Your task to perform on an android device: delete location history Image 0: 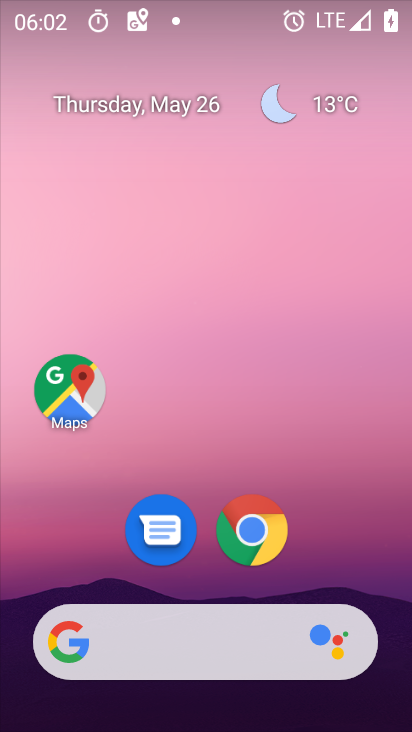
Step 0: drag from (203, 650) to (163, 93)
Your task to perform on an android device: delete location history Image 1: 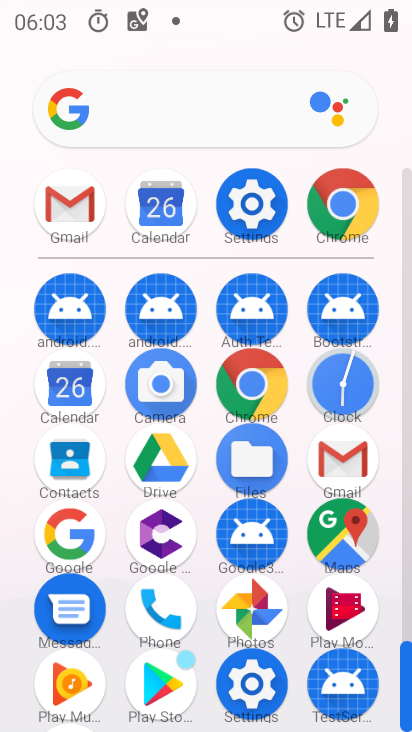
Step 1: click (351, 537)
Your task to perform on an android device: delete location history Image 2: 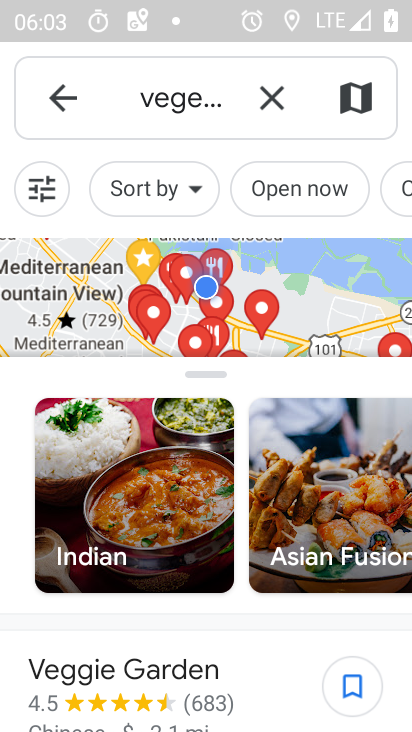
Step 2: press back button
Your task to perform on an android device: delete location history Image 3: 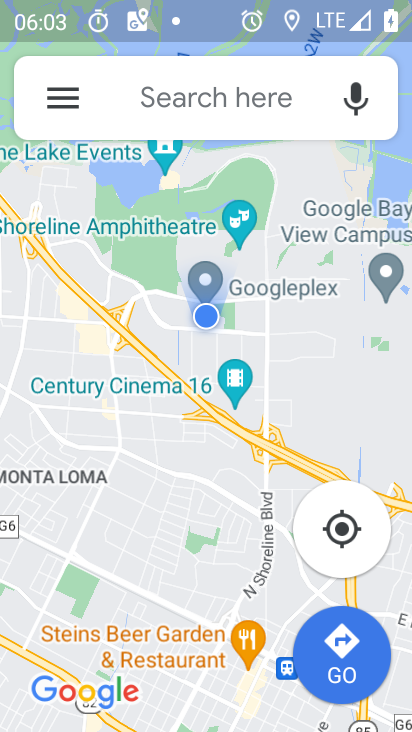
Step 3: click (49, 100)
Your task to perform on an android device: delete location history Image 4: 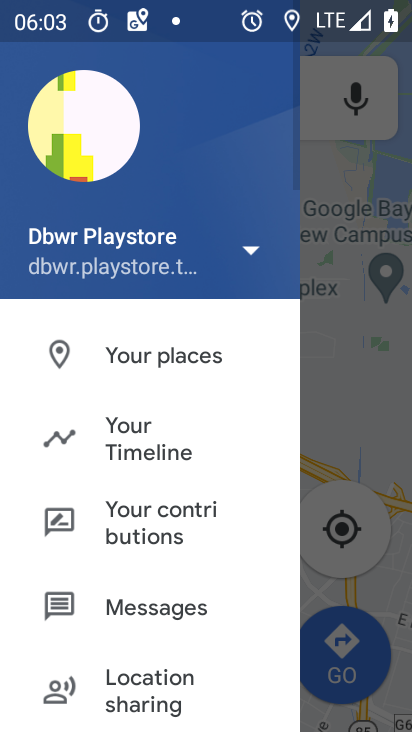
Step 4: click (193, 423)
Your task to perform on an android device: delete location history Image 5: 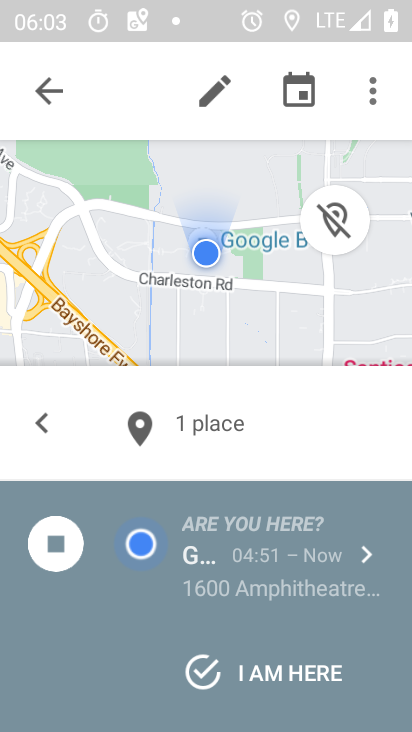
Step 5: click (377, 86)
Your task to perform on an android device: delete location history Image 6: 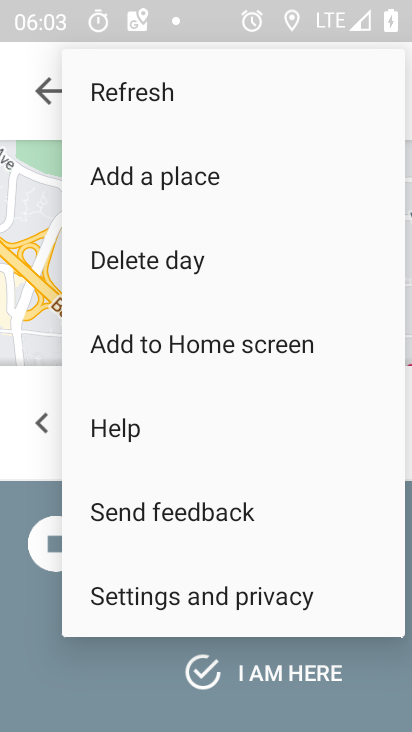
Step 6: click (240, 589)
Your task to perform on an android device: delete location history Image 7: 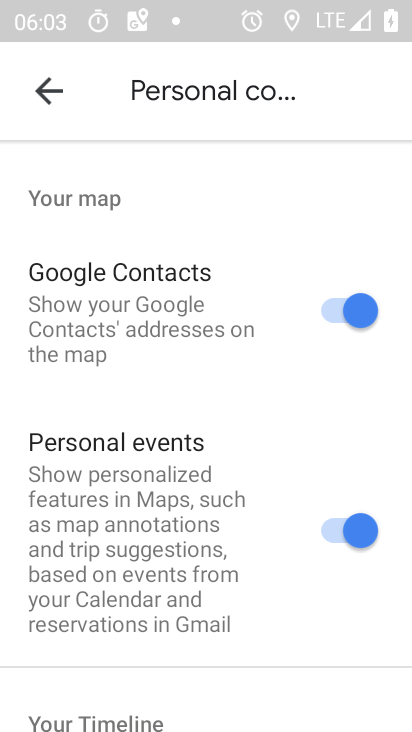
Step 7: drag from (212, 662) to (310, 35)
Your task to perform on an android device: delete location history Image 8: 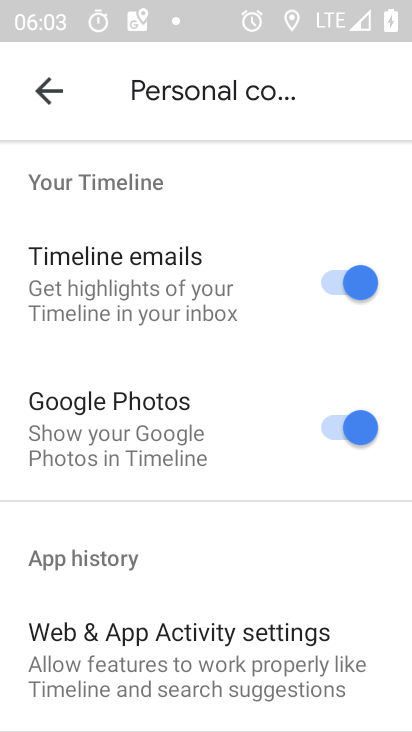
Step 8: drag from (231, 629) to (213, 74)
Your task to perform on an android device: delete location history Image 9: 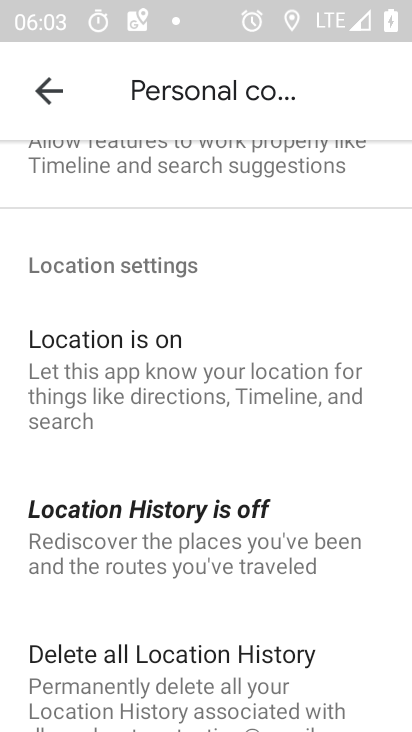
Step 9: click (238, 662)
Your task to perform on an android device: delete location history Image 10: 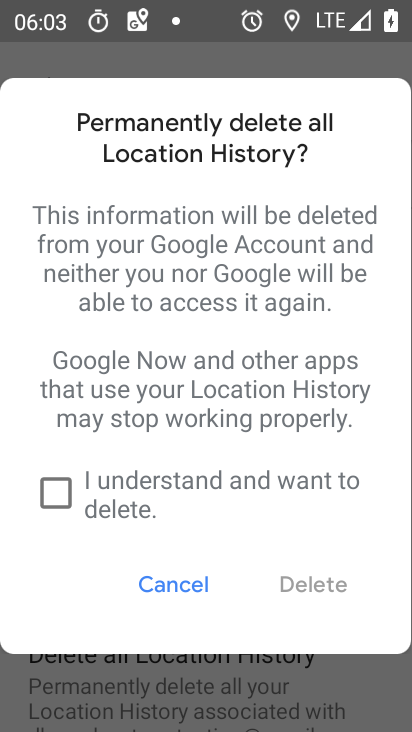
Step 10: click (61, 499)
Your task to perform on an android device: delete location history Image 11: 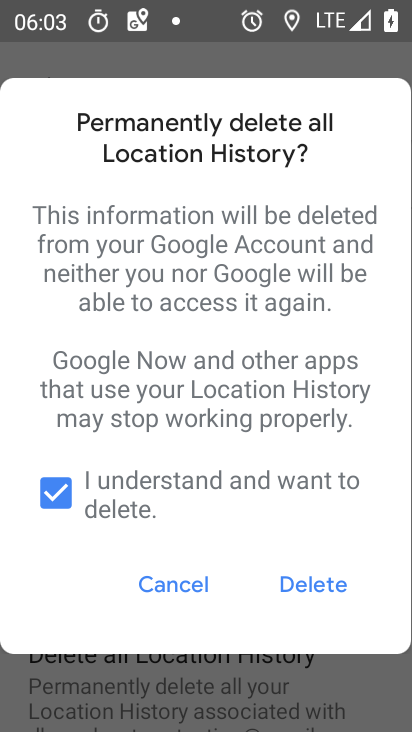
Step 11: click (338, 594)
Your task to perform on an android device: delete location history Image 12: 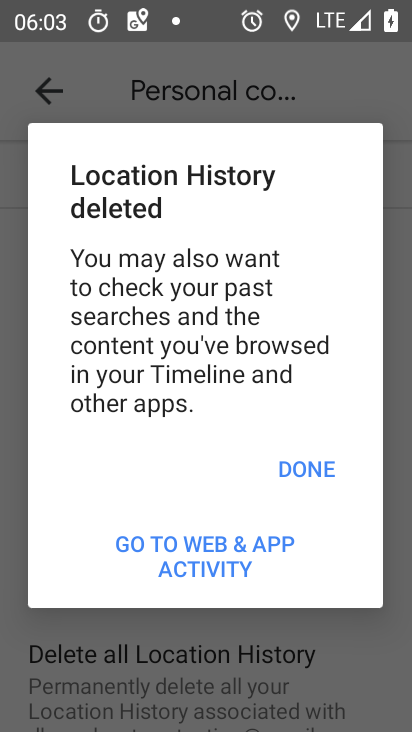
Step 12: click (323, 469)
Your task to perform on an android device: delete location history Image 13: 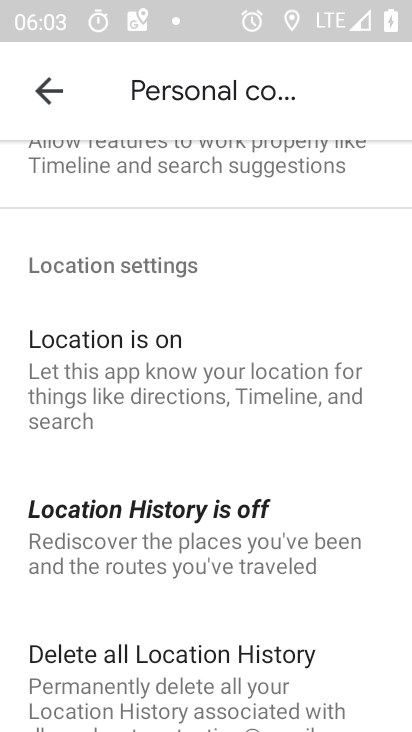
Step 13: task complete